Your task to perform on an android device: Do I have any events tomorrow? Image 0: 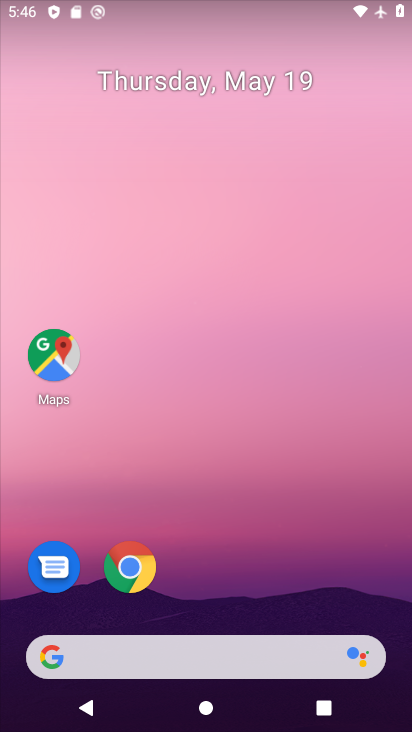
Step 0: drag from (281, 708) to (176, 188)
Your task to perform on an android device: Do I have any events tomorrow? Image 1: 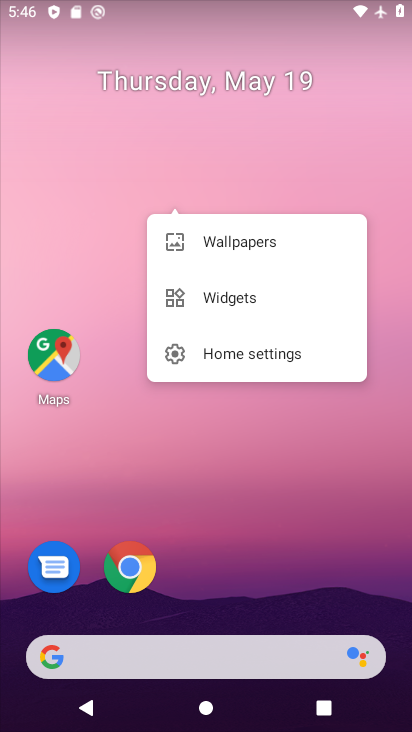
Step 1: click (239, 455)
Your task to perform on an android device: Do I have any events tomorrow? Image 2: 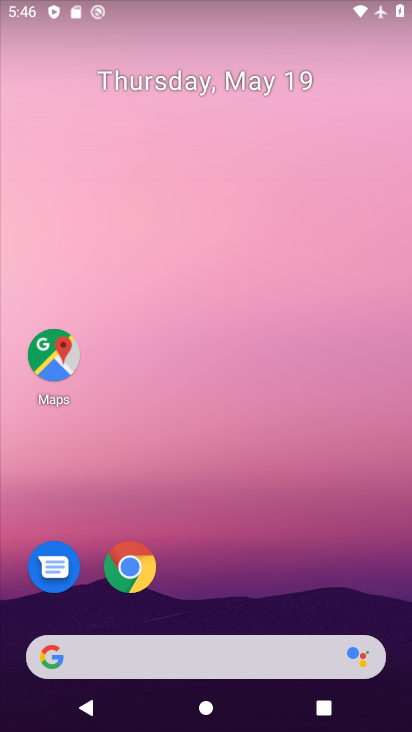
Step 2: click (239, 455)
Your task to perform on an android device: Do I have any events tomorrow? Image 3: 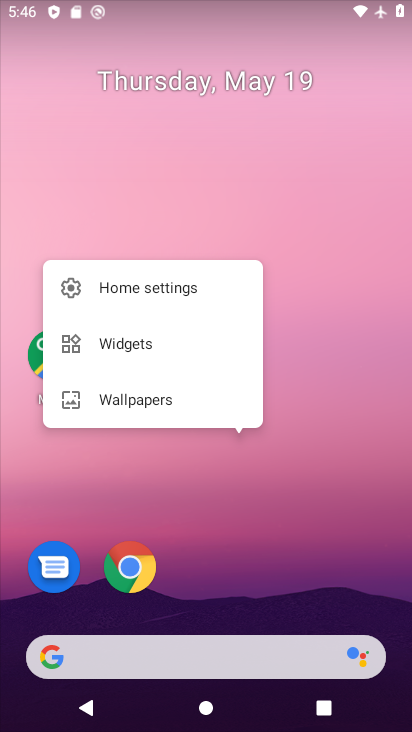
Step 3: drag from (288, 602) to (158, 83)
Your task to perform on an android device: Do I have any events tomorrow? Image 4: 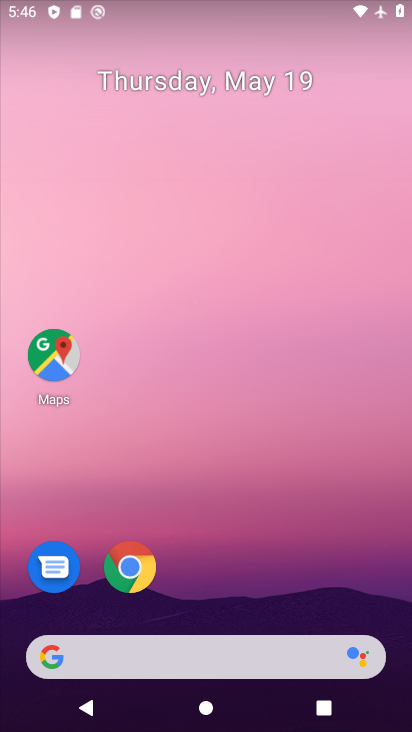
Step 4: drag from (325, 549) to (67, 10)
Your task to perform on an android device: Do I have any events tomorrow? Image 5: 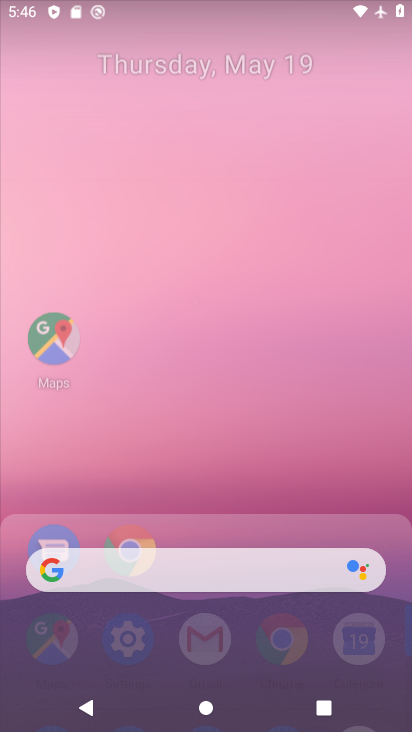
Step 5: drag from (225, 392) to (125, 1)
Your task to perform on an android device: Do I have any events tomorrow? Image 6: 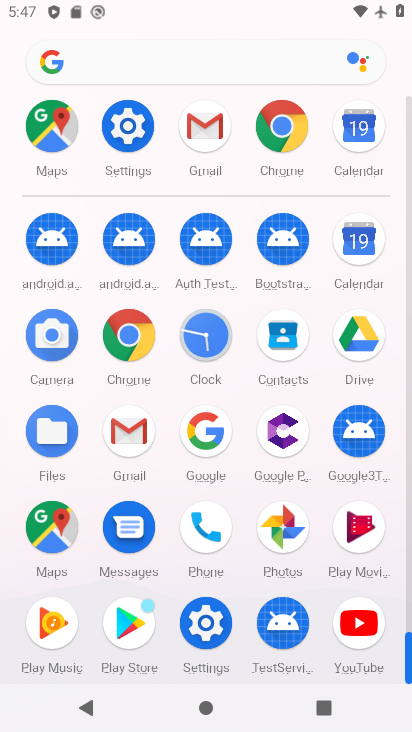
Step 6: click (351, 248)
Your task to perform on an android device: Do I have any events tomorrow? Image 7: 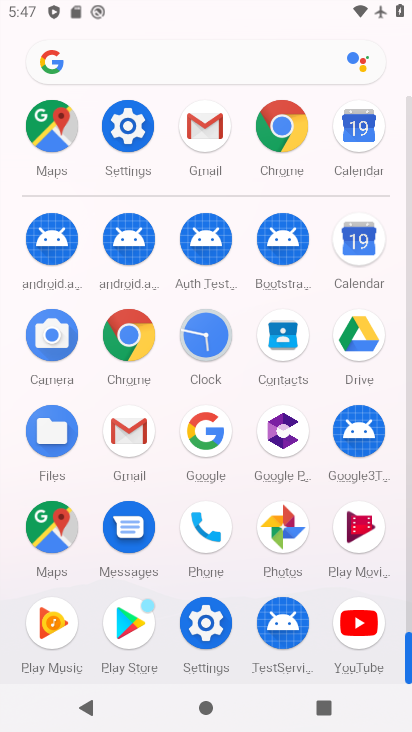
Step 7: click (351, 248)
Your task to perform on an android device: Do I have any events tomorrow? Image 8: 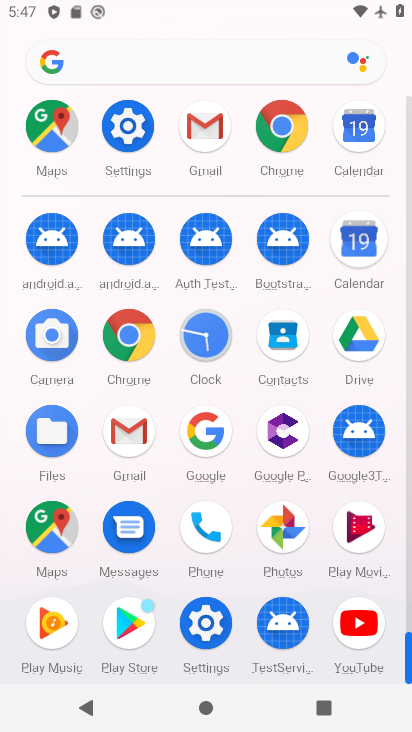
Step 8: click (355, 248)
Your task to perform on an android device: Do I have any events tomorrow? Image 9: 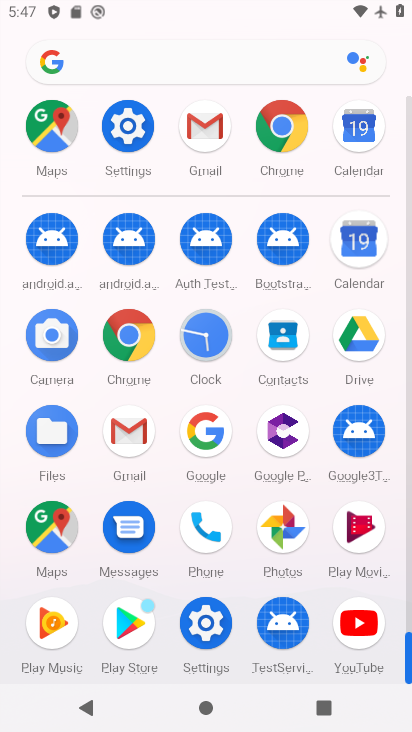
Step 9: click (355, 248)
Your task to perform on an android device: Do I have any events tomorrow? Image 10: 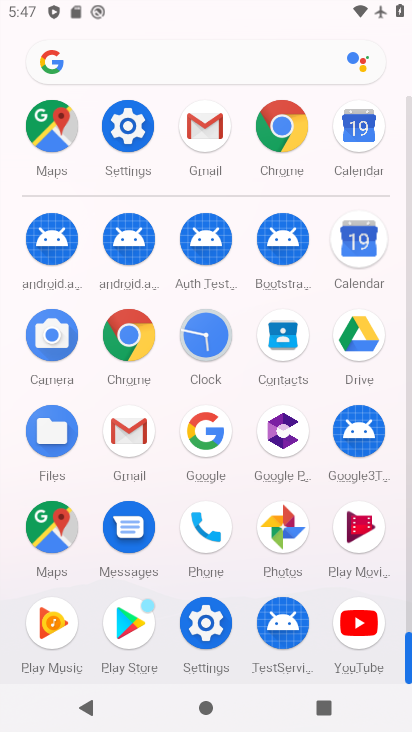
Step 10: click (362, 239)
Your task to perform on an android device: Do I have any events tomorrow? Image 11: 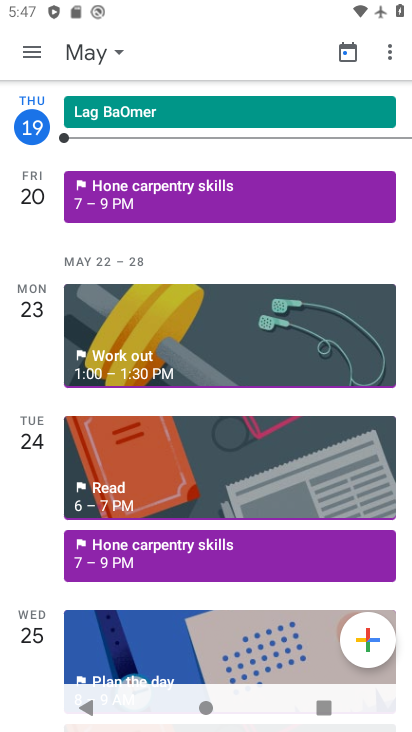
Step 11: click (116, 217)
Your task to perform on an android device: Do I have any events tomorrow? Image 12: 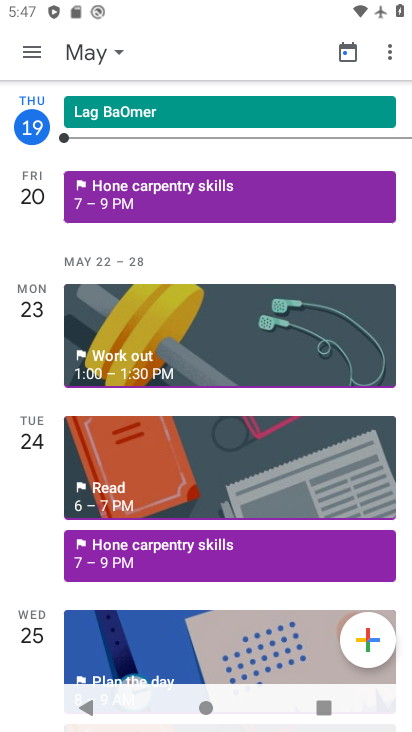
Step 12: click (117, 215)
Your task to perform on an android device: Do I have any events tomorrow? Image 13: 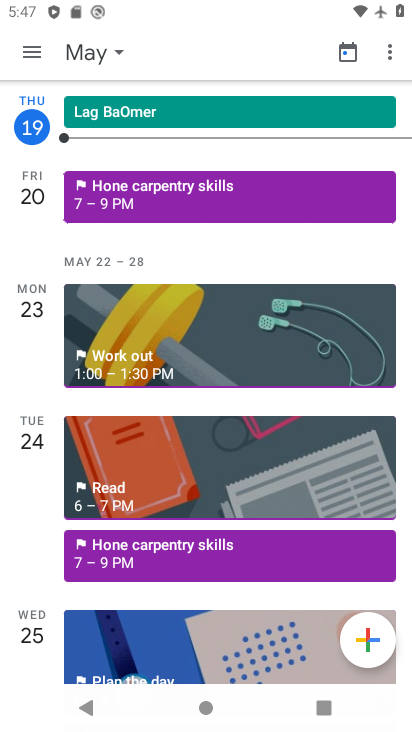
Step 13: click (118, 213)
Your task to perform on an android device: Do I have any events tomorrow? Image 14: 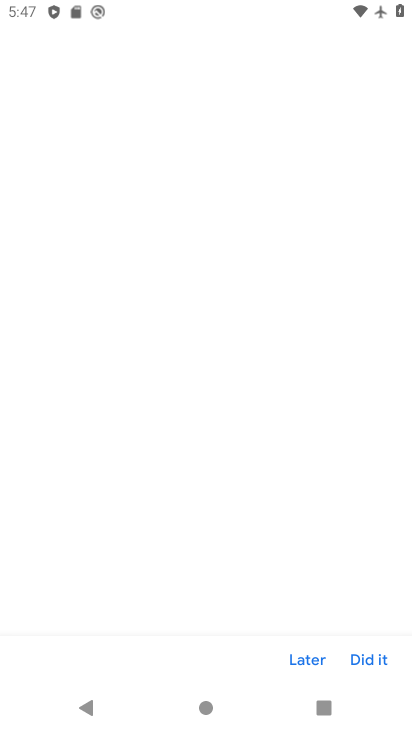
Step 14: click (118, 213)
Your task to perform on an android device: Do I have any events tomorrow? Image 15: 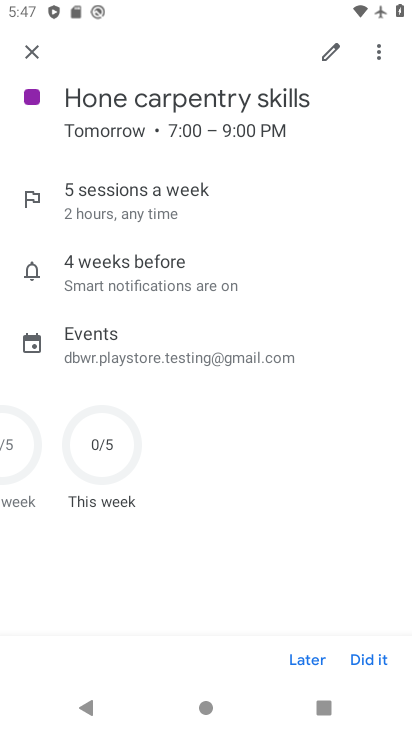
Step 15: task complete